Your task to perform on an android device: toggle improve location accuracy Image 0: 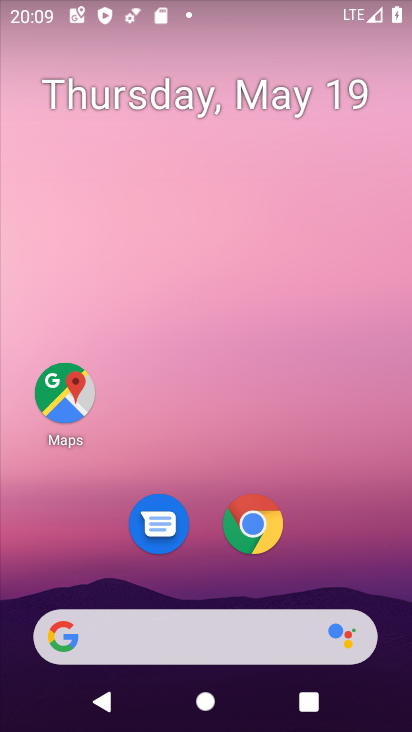
Step 0: drag from (326, 496) to (316, 66)
Your task to perform on an android device: toggle improve location accuracy Image 1: 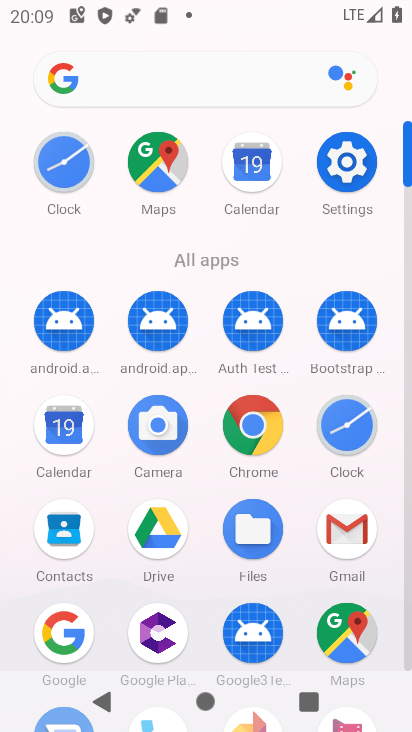
Step 1: click (340, 155)
Your task to perform on an android device: toggle improve location accuracy Image 2: 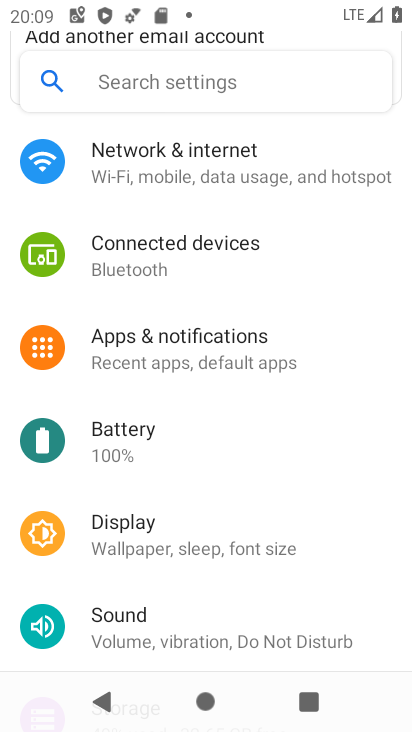
Step 2: drag from (194, 461) to (212, 0)
Your task to perform on an android device: toggle improve location accuracy Image 3: 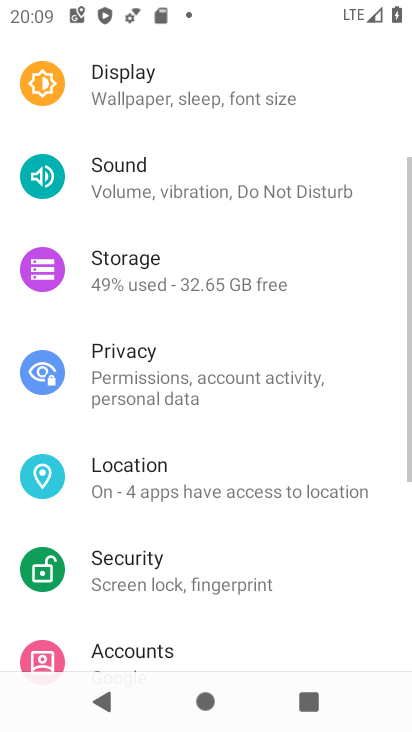
Step 3: click (218, 477)
Your task to perform on an android device: toggle improve location accuracy Image 4: 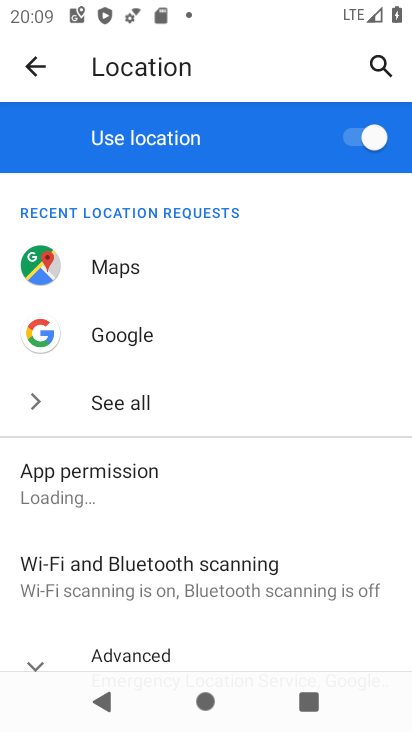
Step 4: drag from (159, 617) to (200, 218)
Your task to perform on an android device: toggle improve location accuracy Image 5: 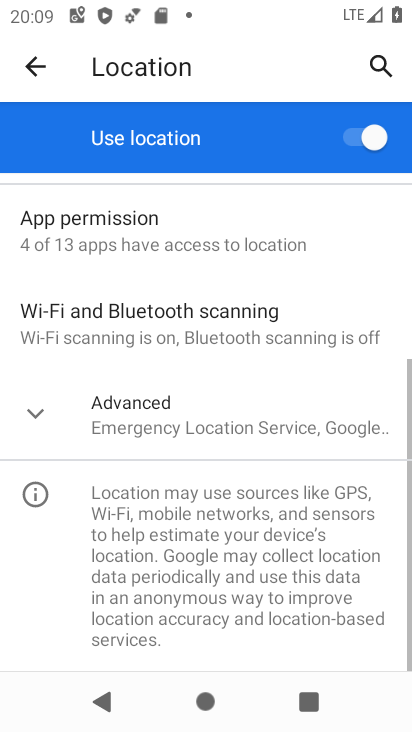
Step 5: click (34, 407)
Your task to perform on an android device: toggle improve location accuracy Image 6: 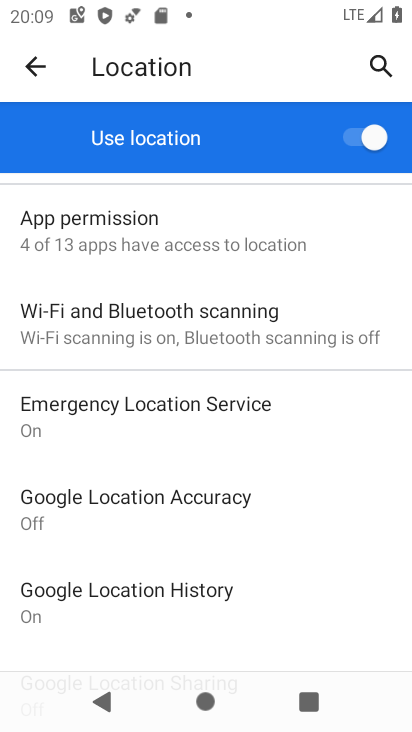
Step 6: click (122, 495)
Your task to perform on an android device: toggle improve location accuracy Image 7: 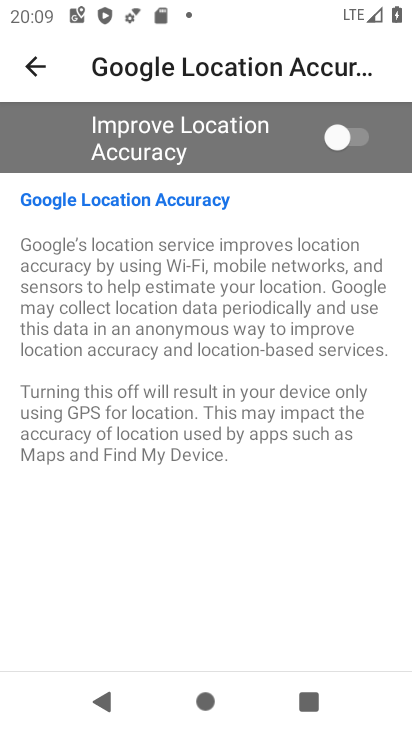
Step 7: click (357, 131)
Your task to perform on an android device: toggle improve location accuracy Image 8: 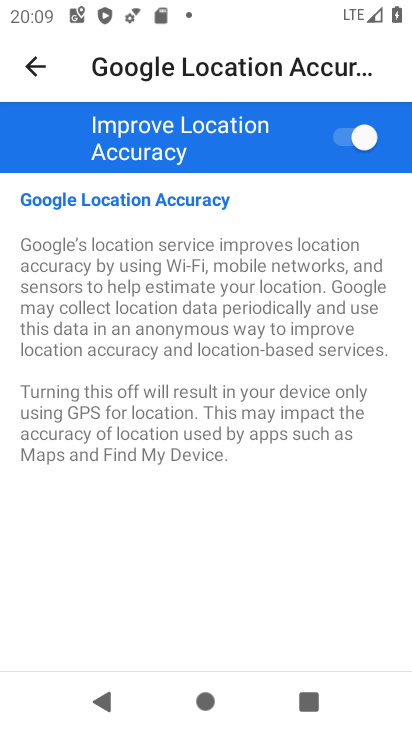
Step 8: task complete